Your task to perform on an android device: Go to sound settings Image 0: 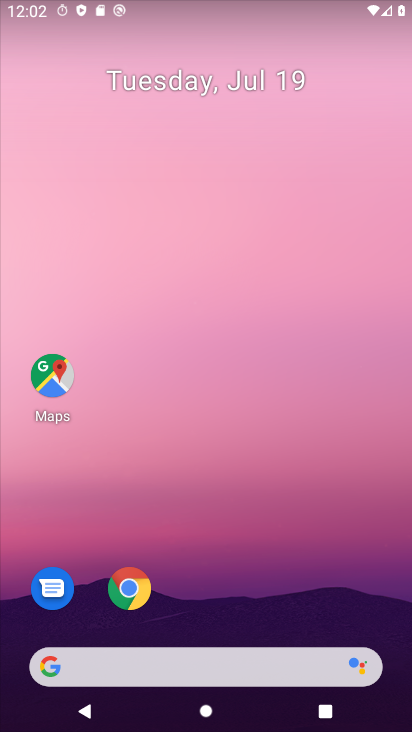
Step 0: drag from (254, 623) to (176, 10)
Your task to perform on an android device: Go to sound settings Image 1: 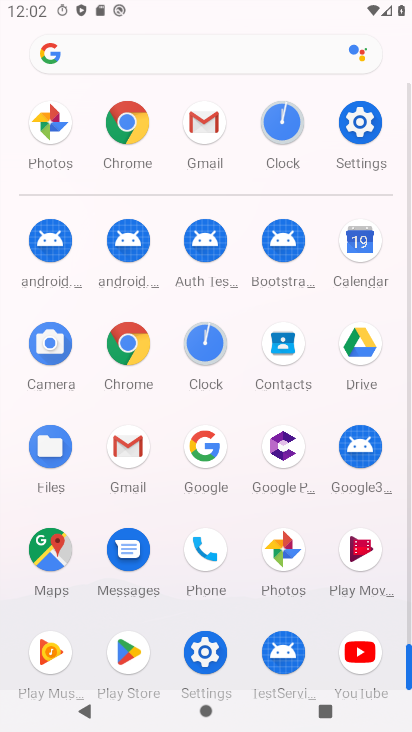
Step 1: drag from (228, 533) to (161, 55)
Your task to perform on an android device: Go to sound settings Image 2: 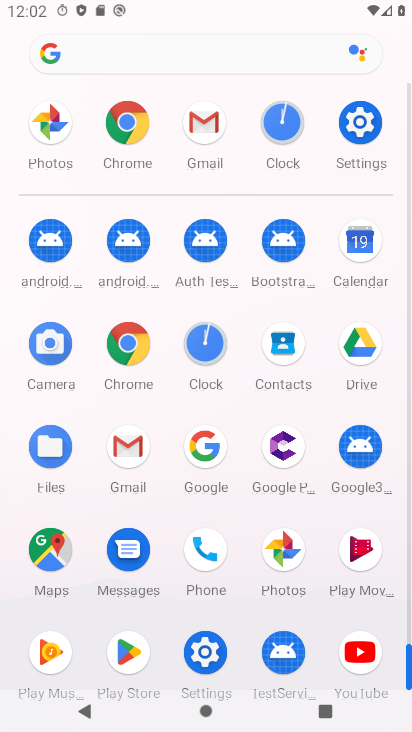
Step 2: click (200, 169)
Your task to perform on an android device: Go to sound settings Image 3: 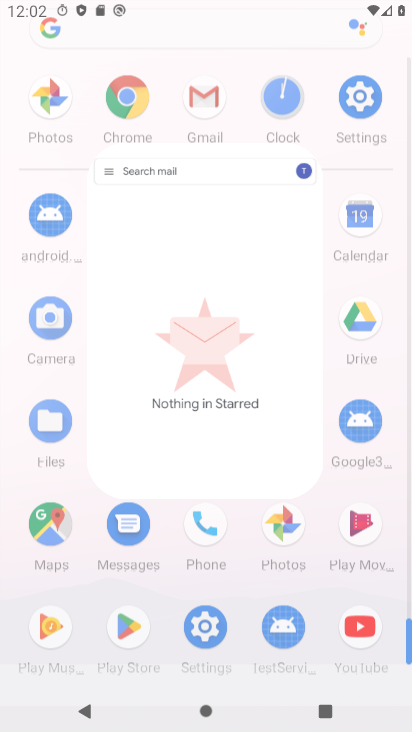
Step 3: drag from (213, 633) to (186, 127)
Your task to perform on an android device: Go to sound settings Image 4: 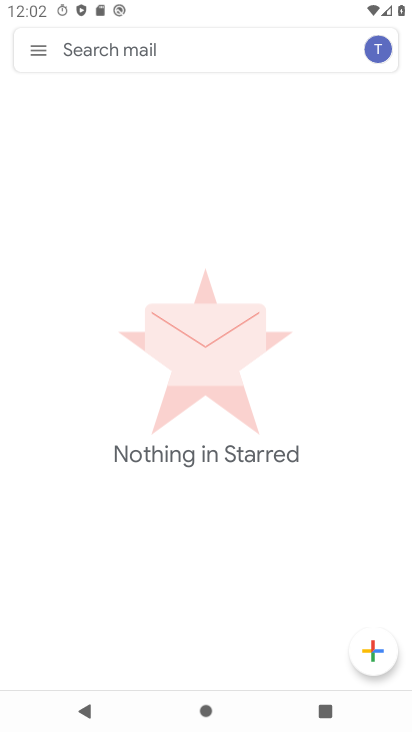
Step 4: press back button
Your task to perform on an android device: Go to sound settings Image 5: 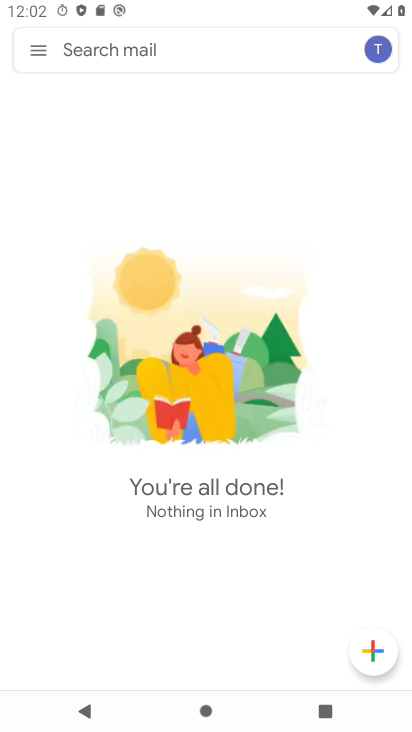
Step 5: press home button
Your task to perform on an android device: Go to sound settings Image 6: 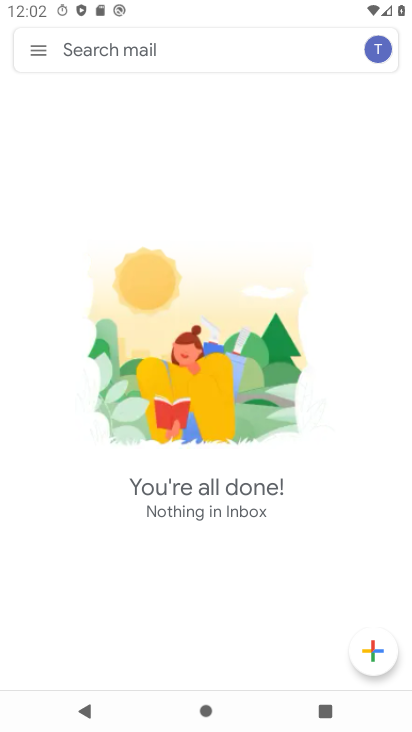
Step 6: press back button
Your task to perform on an android device: Go to sound settings Image 7: 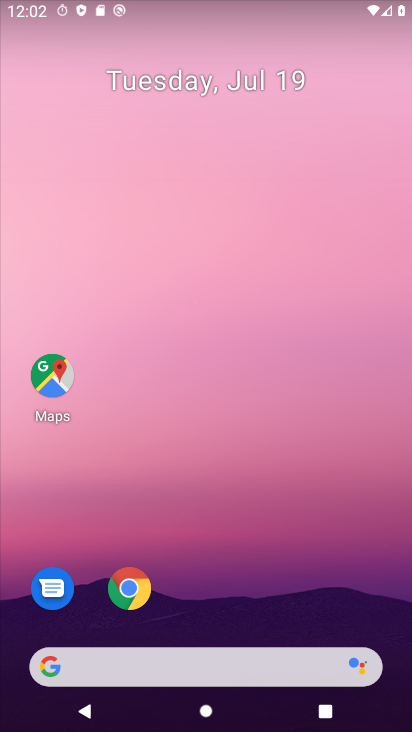
Step 7: drag from (203, 301) to (182, 205)
Your task to perform on an android device: Go to sound settings Image 8: 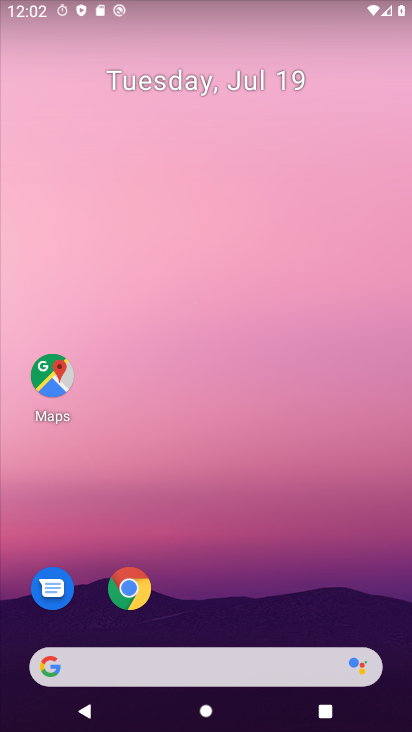
Step 8: click (251, 305)
Your task to perform on an android device: Go to sound settings Image 9: 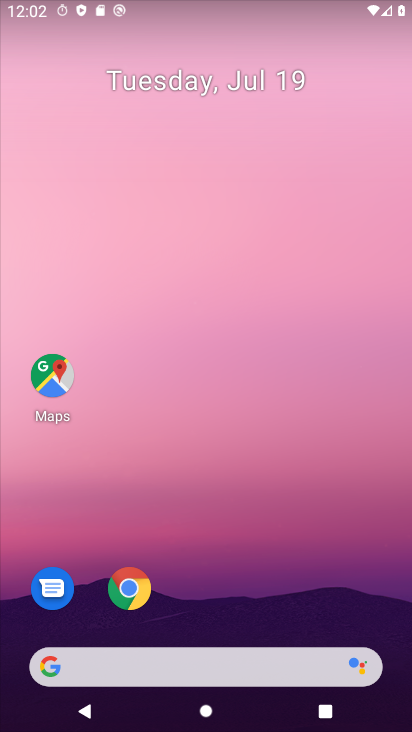
Step 9: drag from (220, 589) to (211, 190)
Your task to perform on an android device: Go to sound settings Image 10: 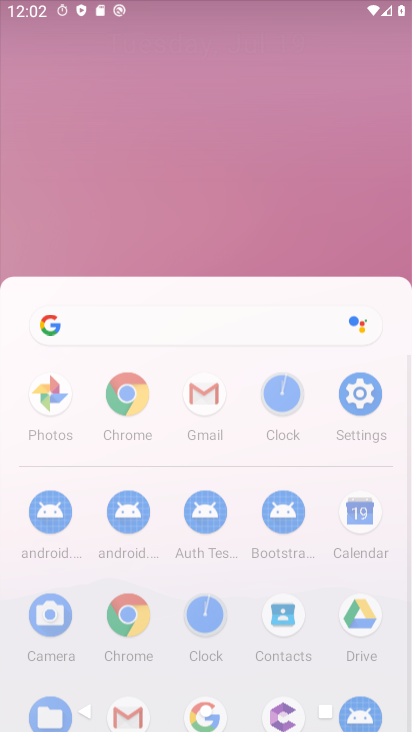
Step 10: drag from (205, 428) to (185, 205)
Your task to perform on an android device: Go to sound settings Image 11: 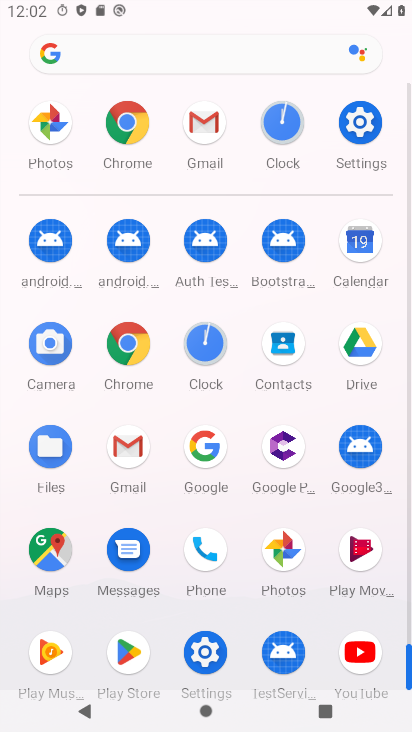
Step 11: click (369, 114)
Your task to perform on an android device: Go to sound settings Image 12: 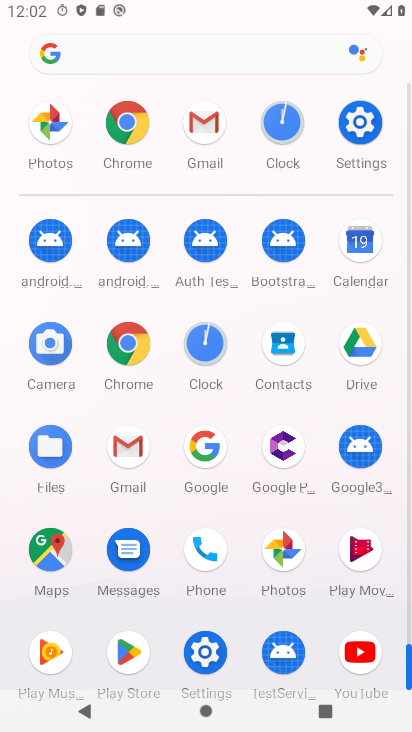
Step 12: click (372, 129)
Your task to perform on an android device: Go to sound settings Image 13: 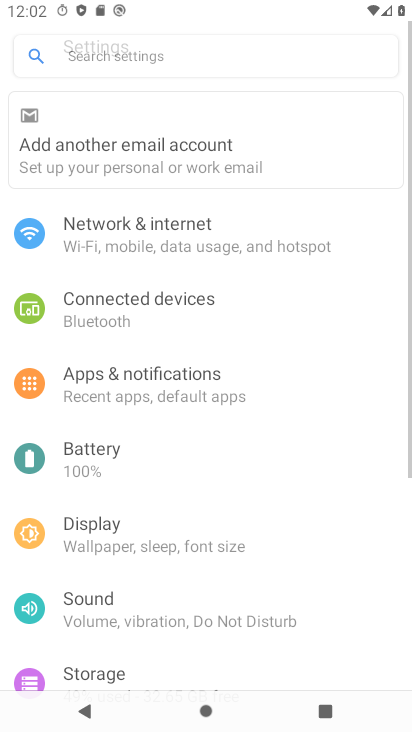
Step 13: click (372, 121)
Your task to perform on an android device: Go to sound settings Image 14: 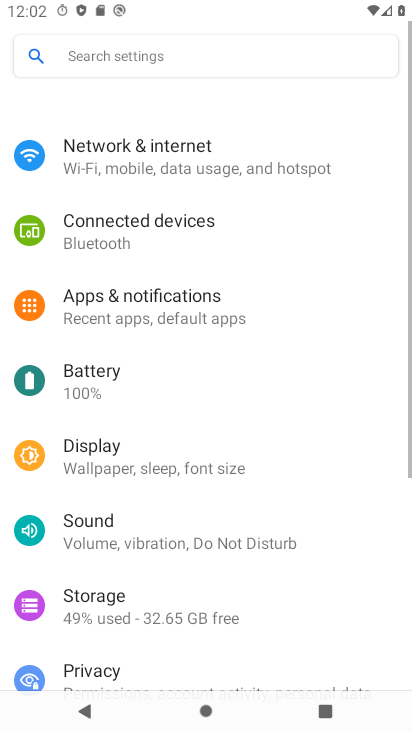
Step 14: click (373, 120)
Your task to perform on an android device: Go to sound settings Image 15: 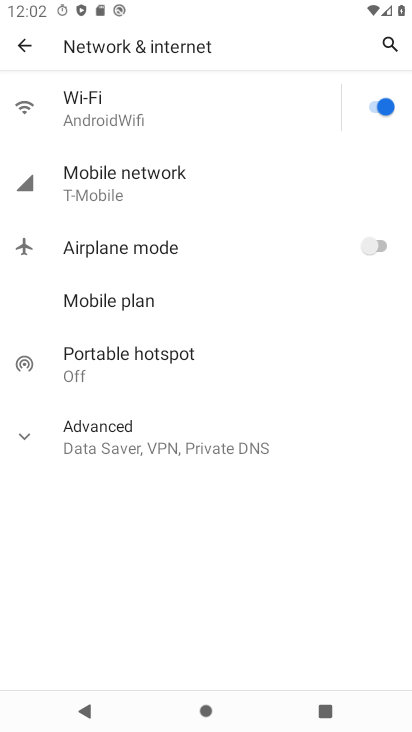
Step 15: click (29, 41)
Your task to perform on an android device: Go to sound settings Image 16: 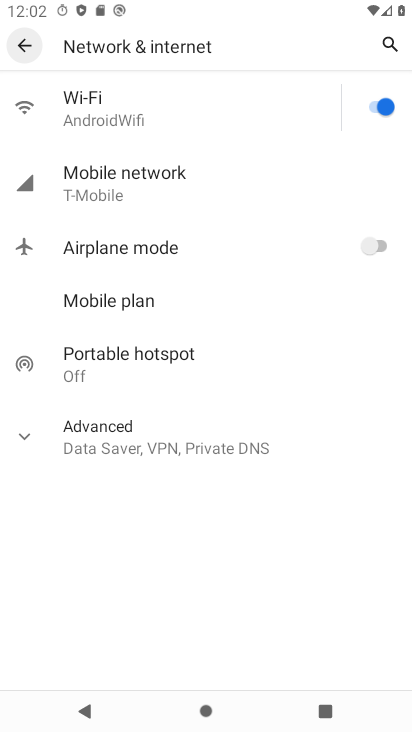
Step 16: click (26, 37)
Your task to perform on an android device: Go to sound settings Image 17: 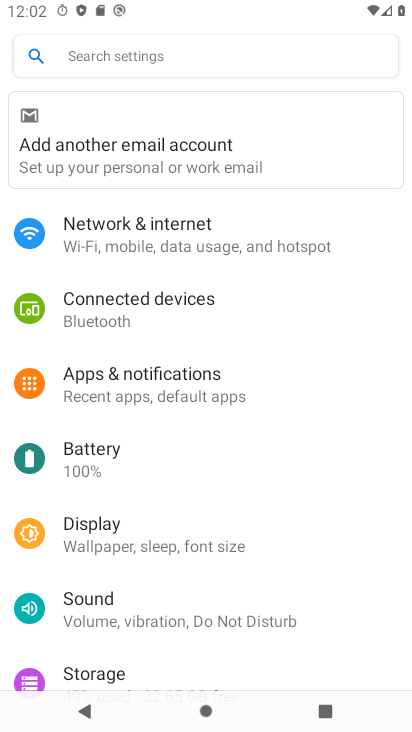
Step 17: click (89, 611)
Your task to perform on an android device: Go to sound settings Image 18: 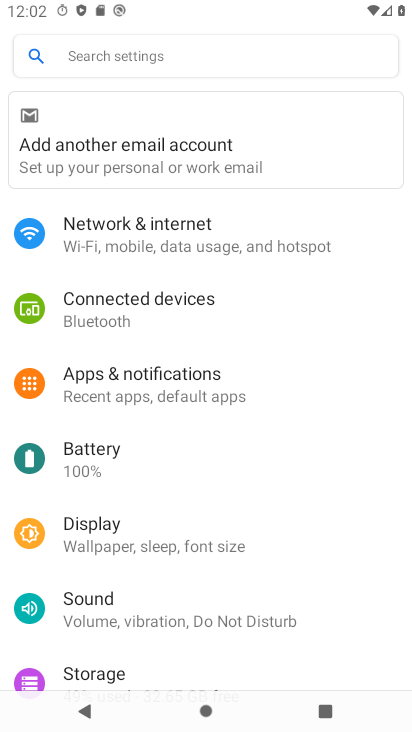
Step 18: click (89, 611)
Your task to perform on an android device: Go to sound settings Image 19: 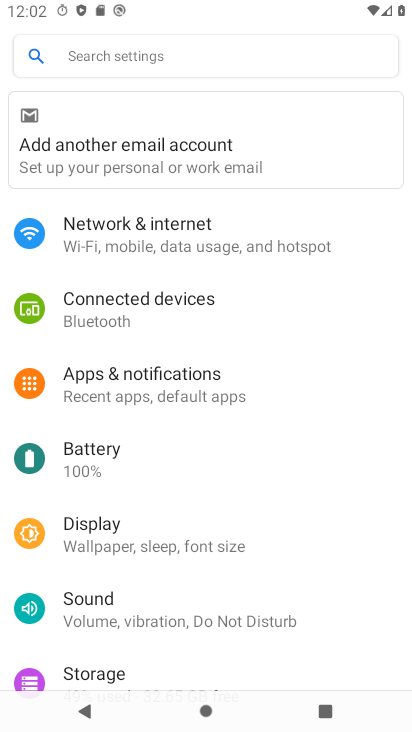
Step 19: click (89, 611)
Your task to perform on an android device: Go to sound settings Image 20: 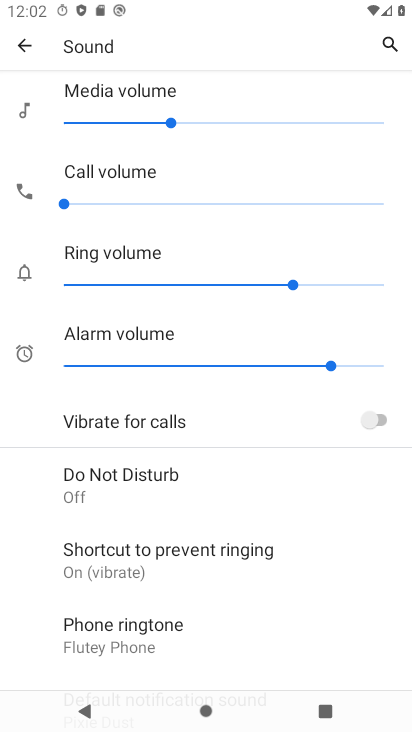
Step 20: task complete